Your task to perform on an android device: Go to notification settings Image 0: 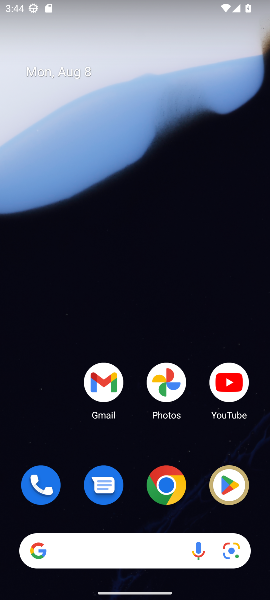
Step 0: drag from (152, 510) to (107, 139)
Your task to perform on an android device: Go to notification settings Image 1: 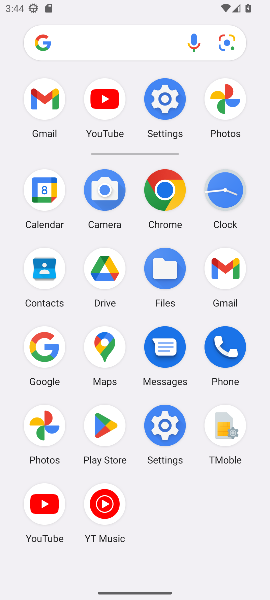
Step 1: click (168, 428)
Your task to perform on an android device: Go to notification settings Image 2: 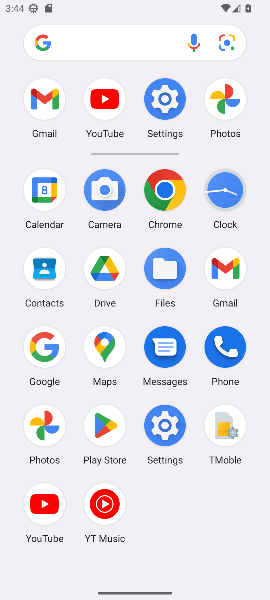
Step 2: click (167, 429)
Your task to perform on an android device: Go to notification settings Image 3: 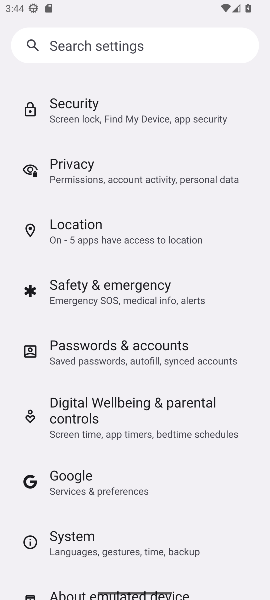
Step 3: click (166, 429)
Your task to perform on an android device: Go to notification settings Image 4: 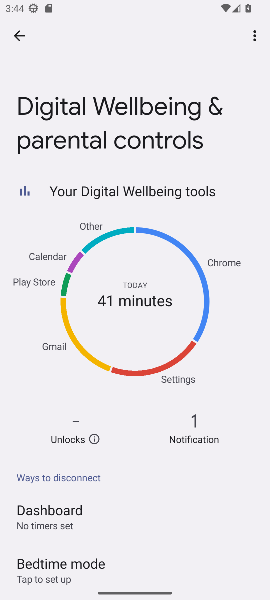
Step 4: click (5, 34)
Your task to perform on an android device: Go to notification settings Image 5: 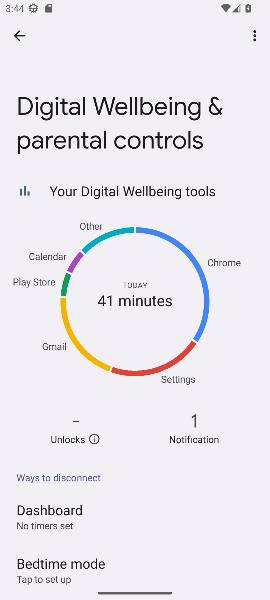
Step 5: click (17, 30)
Your task to perform on an android device: Go to notification settings Image 6: 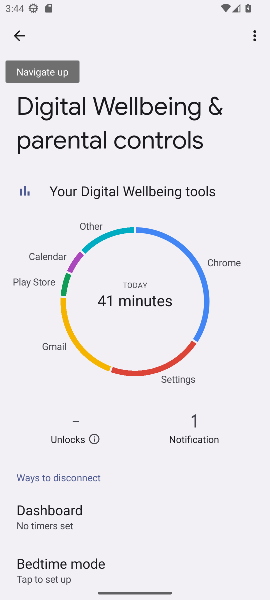
Step 6: click (17, 32)
Your task to perform on an android device: Go to notification settings Image 7: 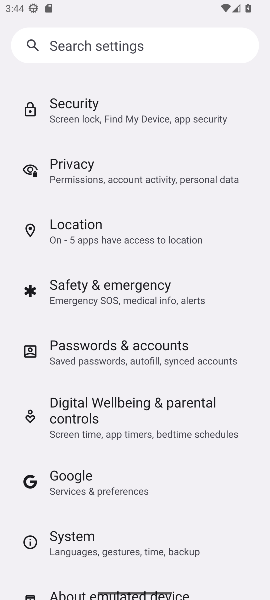
Step 7: drag from (115, 452) to (173, 121)
Your task to perform on an android device: Go to notification settings Image 8: 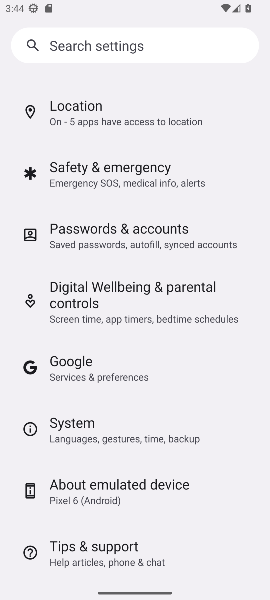
Step 8: drag from (189, 373) to (155, 136)
Your task to perform on an android device: Go to notification settings Image 9: 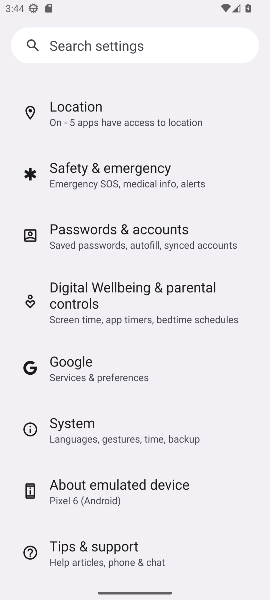
Step 9: drag from (144, 400) to (97, 96)
Your task to perform on an android device: Go to notification settings Image 10: 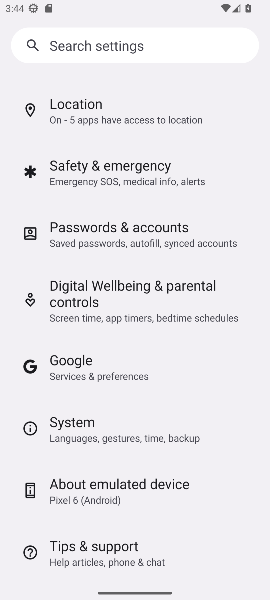
Step 10: drag from (165, 476) to (118, 120)
Your task to perform on an android device: Go to notification settings Image 11: 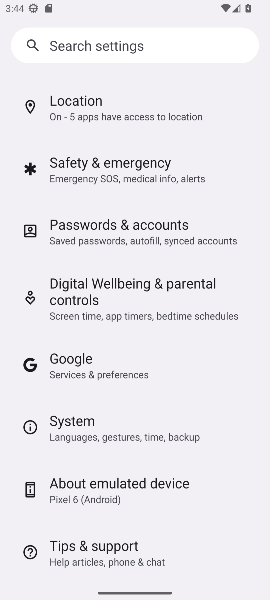
Step 11: drag from (140, 446) to (118, 273)
Your task to perform on an android device: Go to notification settings Image 12: 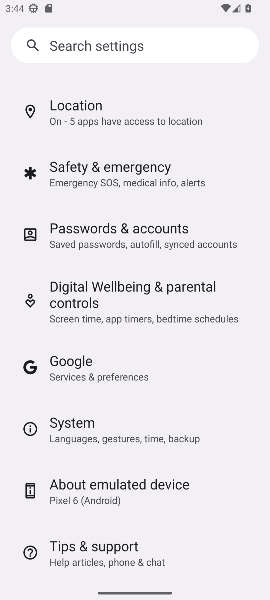
Step 12: drag from (87, 265) to (123, 562)
Your task to perform on an android device: Go to notification settings Image 13: 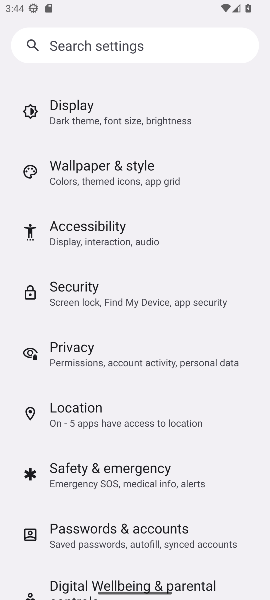
Step 13: drag from (31, 201) to (56, 553)
Your task to perform on an android device: Go to notification settings Image 14: 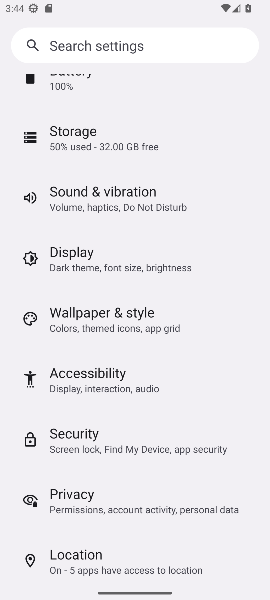
Step 14: drag from (32, 155) to (124, 516)
Your task to perform on an android device: Go to notification settings Image 15: 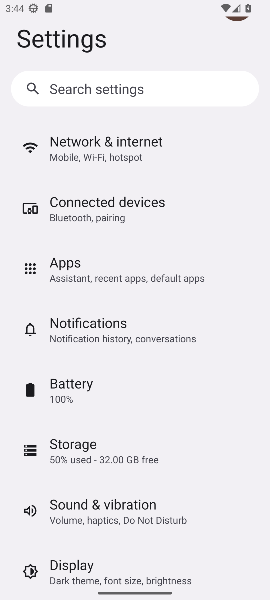
Step 15: click (75, 323)
Your task to perform on an android device: Go to notification settings Image 16: 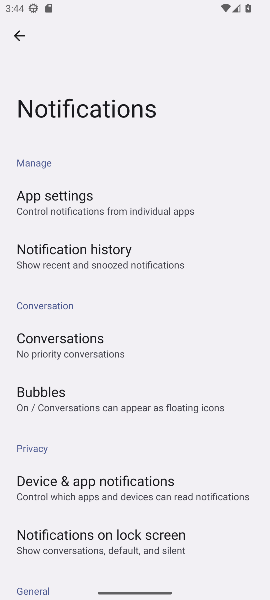
Step 16: task complete